Your task to perform on an android device: Go to wifi settings Image 0: 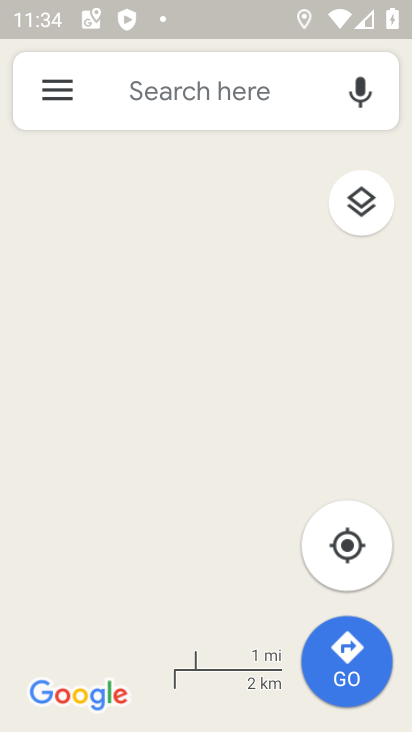
Step 0: press back button
Your task to perform on an android device: Go to wifi settings Image 1: 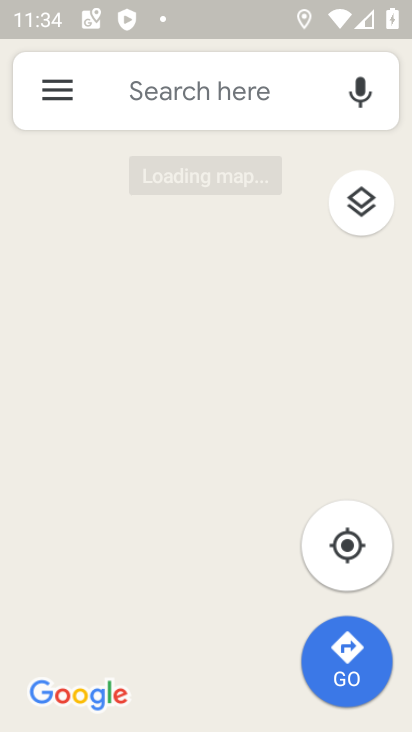
Step 1: press back button
Your task to perform on an android device: Go to wifi settings Image 2: 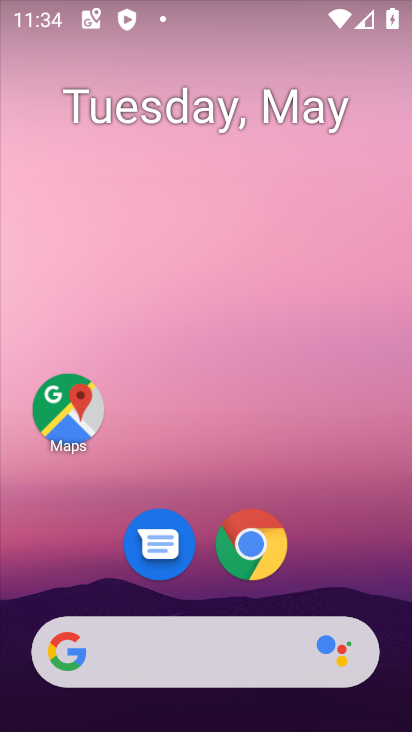
Step 2: drag from (363, 705) to (208, 24)
Your task to perform on an android device: Go to wifi settings Image 3: 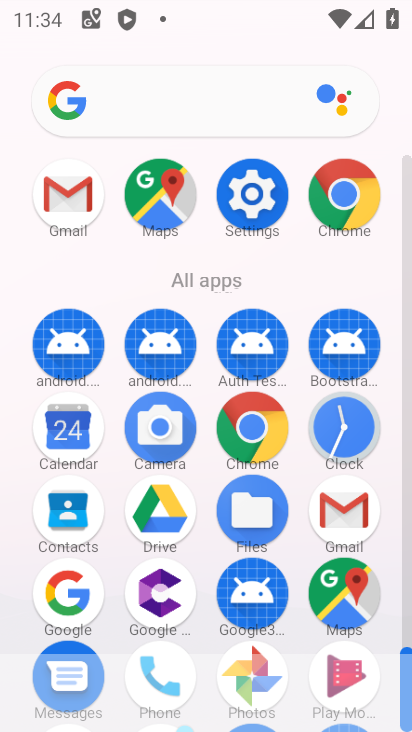
Step 3: click (255, 187)
Your task to perform on an android device: Go to wifi settings Image 4: 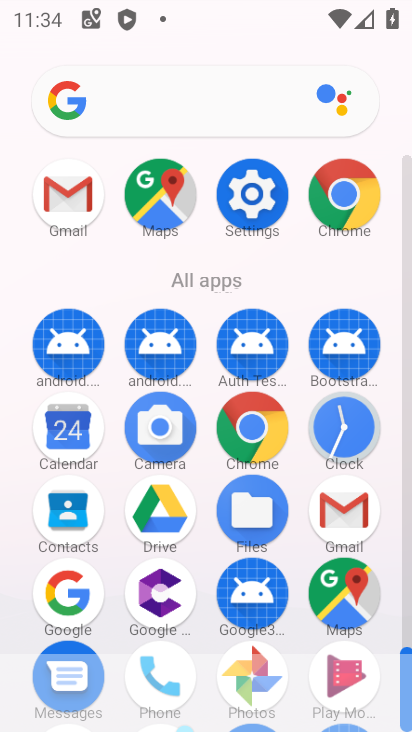
Step 4: click (256, 188)
Your task to perform on an android device: Go to wifi settings Image 5: 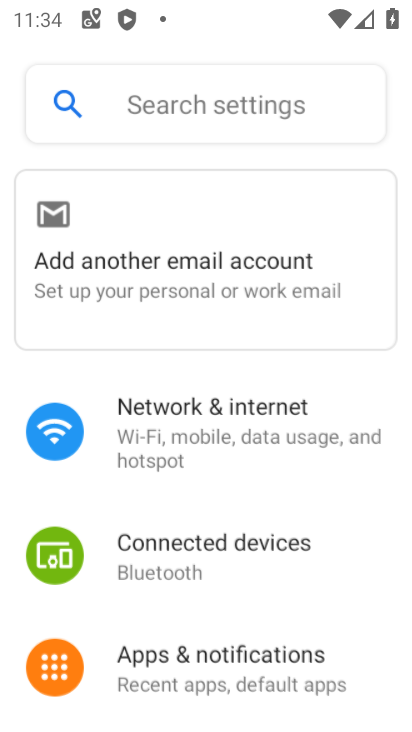
Step 5: click (257, 188)
Your task to perform on an android device: Go to wifi settings Image 6: 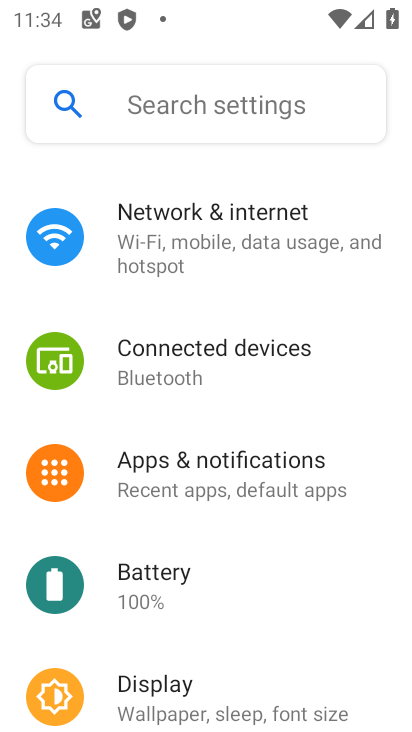
Step 6: click (256, 188)
Your task to perform on an android device: Go to wifi settings Image 7: 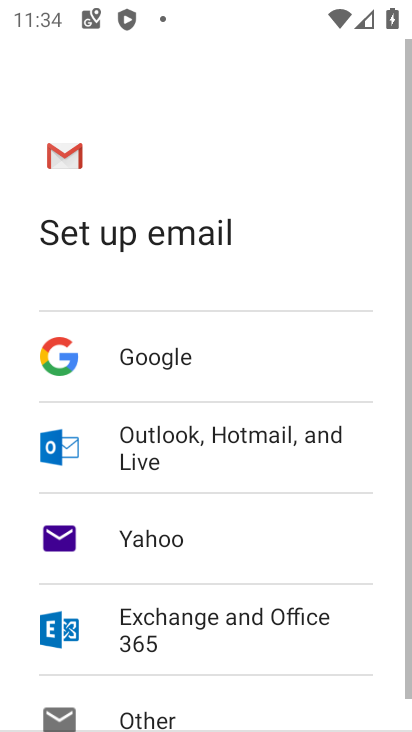
Step 7: press back button
Your task to perform on an android device: Go to wifi settings Image 8: 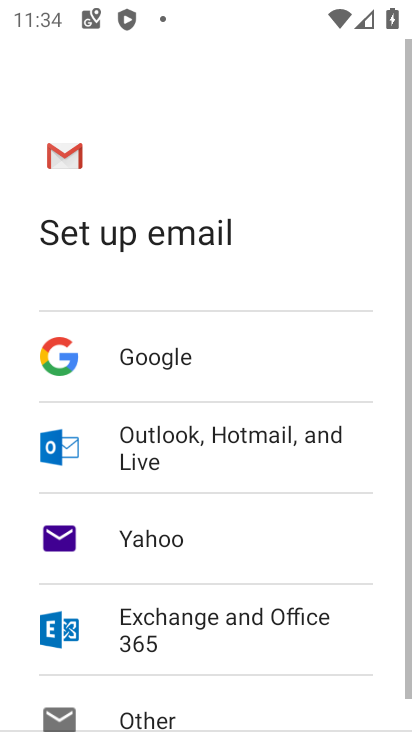
Step 8: press back button
Your task to perform on an android device: Go to wifi settings Image 9: 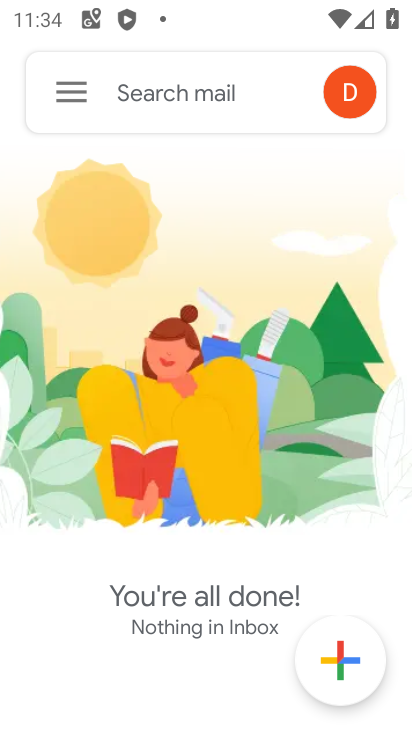
Step 9: press back button
Your task to perform on an android device: Go to wifi settings Image 10: 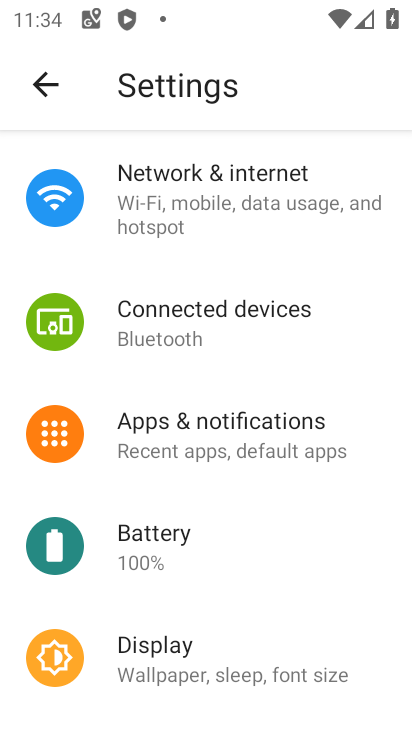
Step 10: click (186, 195)
Your task to perform on an android device: Go to wifi settings Image 11: 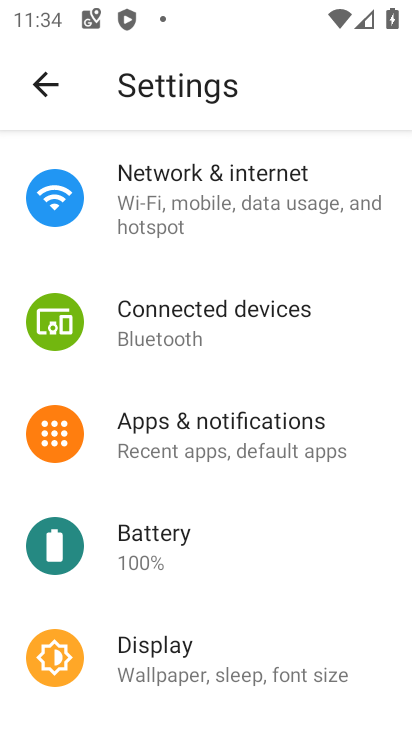
Step 11: click (186, 195)
Your task to perform on an android device: Go to wifi settings Image 12: 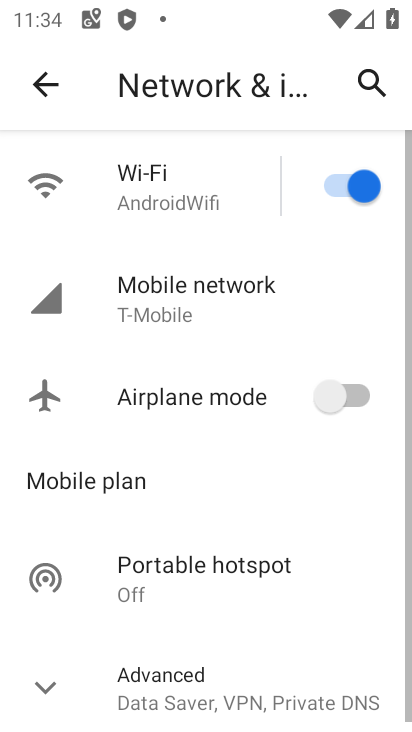
Step 12: click (186, 203)
Your task to perform on an android device: Go to wifi settings Image 13: 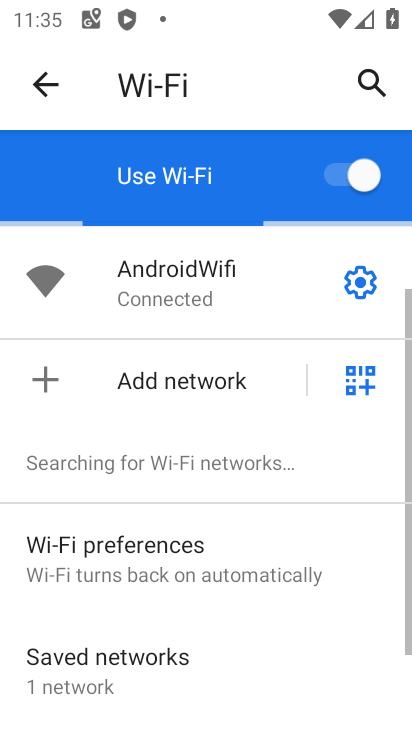
Step 13: task complete